Your task to perform on an android device: Go to Maps Image 0: 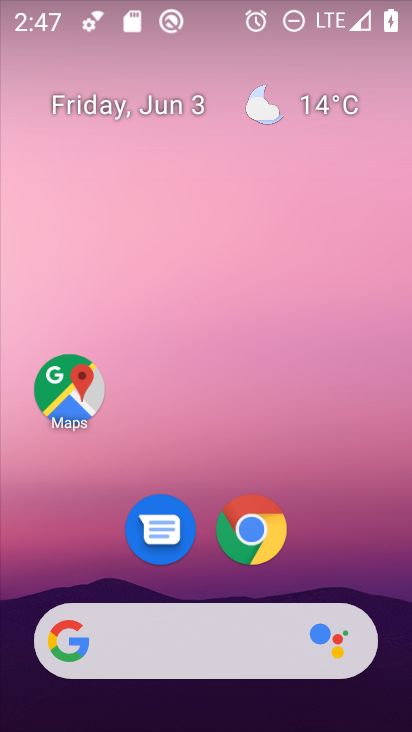
Step 0: drag from (383, 582) to (365, 283)
Your task to perform on an android device: Go to Maps Image 1: 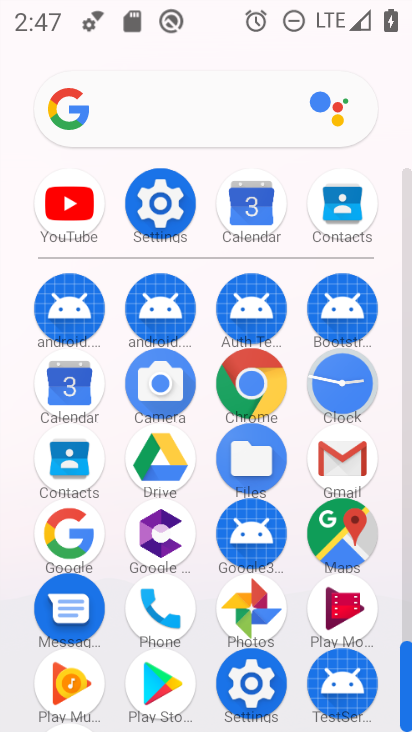
Step 1: click (356, 535)
Your task to perform on an android device: Go to Maps Image 2: 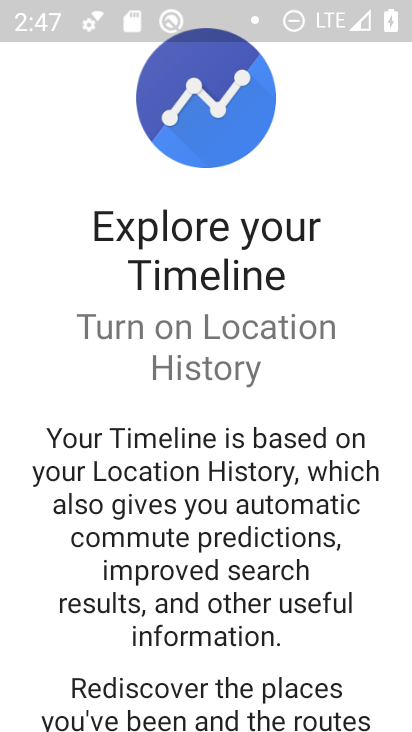
Step 2: task complete